Your task to perform on an android device: Open Android settings Image 0: 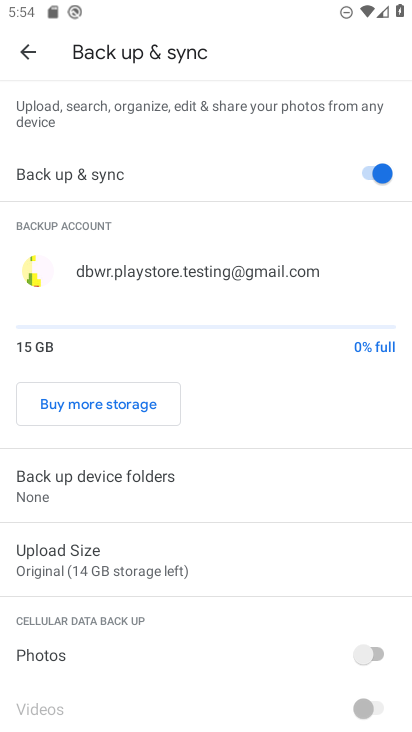
Step 0: press home button
Your task to perform on an android device: Open Android settings Image 1: 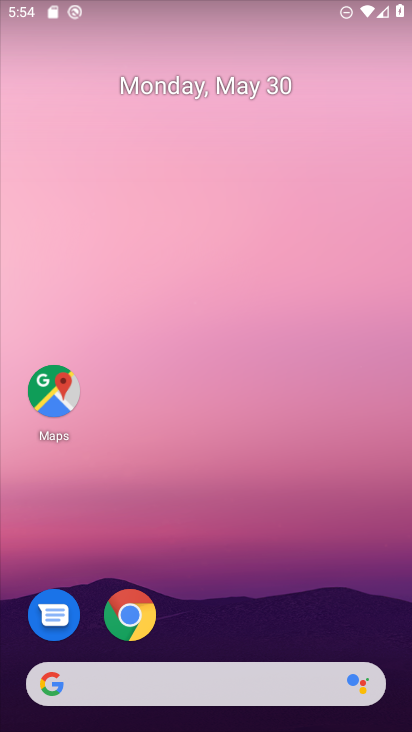
Step 1: drag from (188, 629) to (214, 30)
Your task to perform on an android device: Open Android settings Image 2: 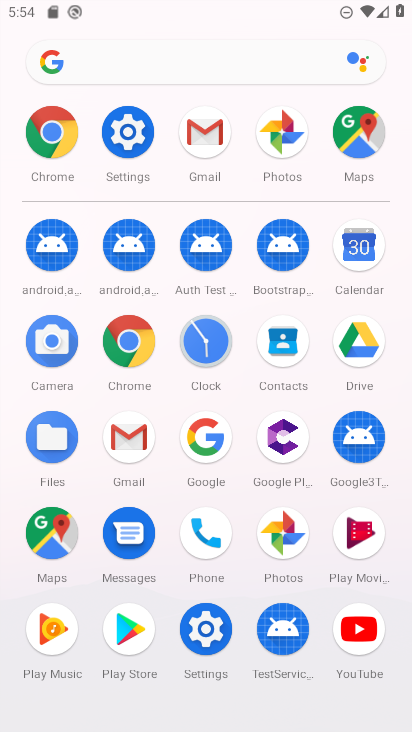
Step 2: click (143, 129)
Your task to perform on an android device: Open Android settings Image 3: 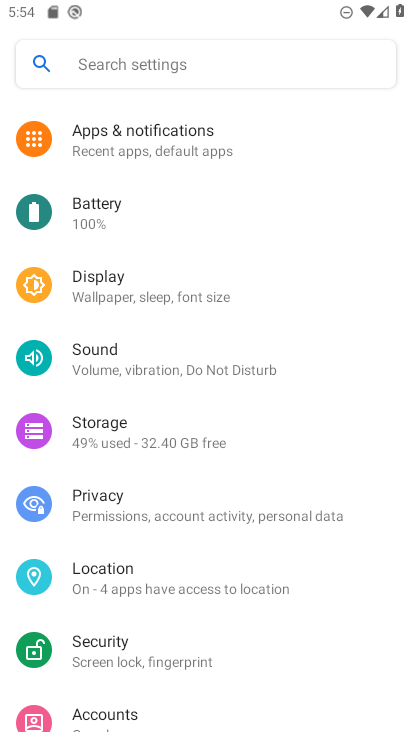
Step 3: task complete